Your task to perform on an android device: Search for pizza restaurants on Maps Image 0: 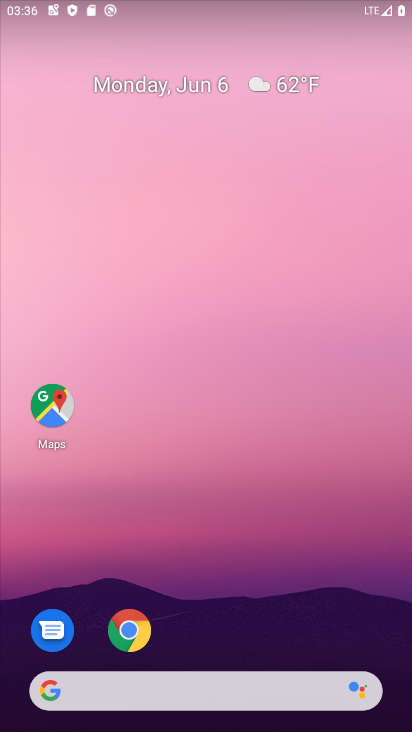
Step 0: drag from (331, 649) to (307, 288)
Your task to perform on an android device: Search for pizza restaurants on Maps Image 1: 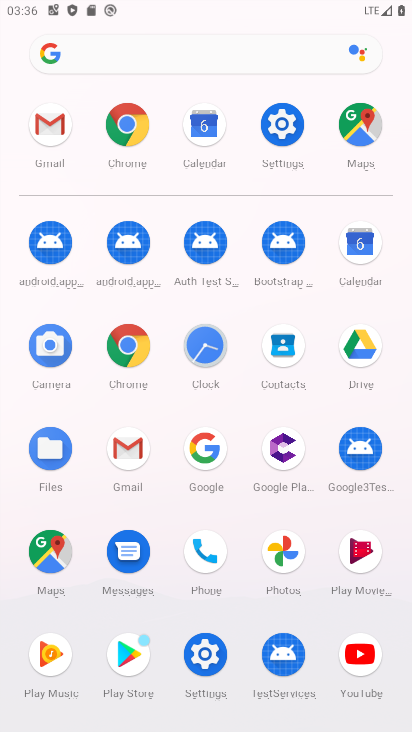
Step 1: click (345, 139)
Your task to perform on an android device: Search for pizza restaurants on Maps Image 2: 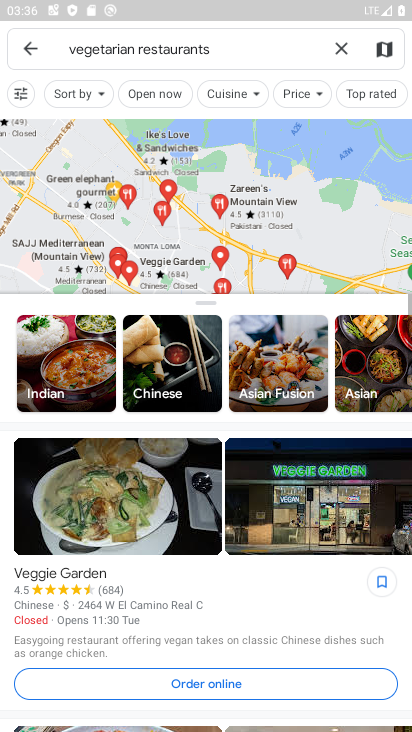
Step 2: click (335, 41)
Your task to perform on an android device: Search for pizza restaurants on Maps Image 3: 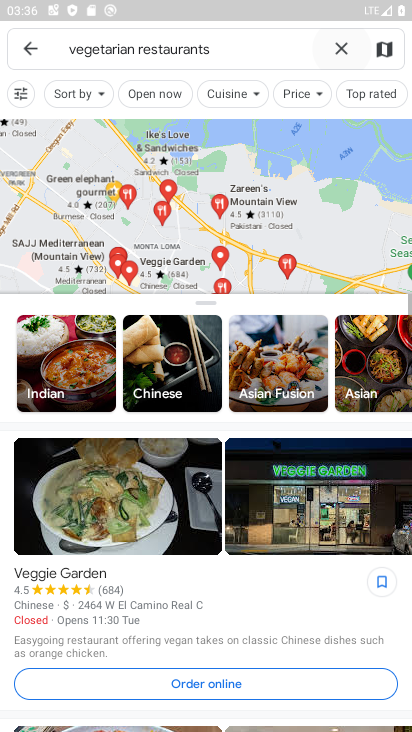
Step 3: click (290, 45)
Your task to perform on an android device: Search for pizza restaurants on Maps Image 4: 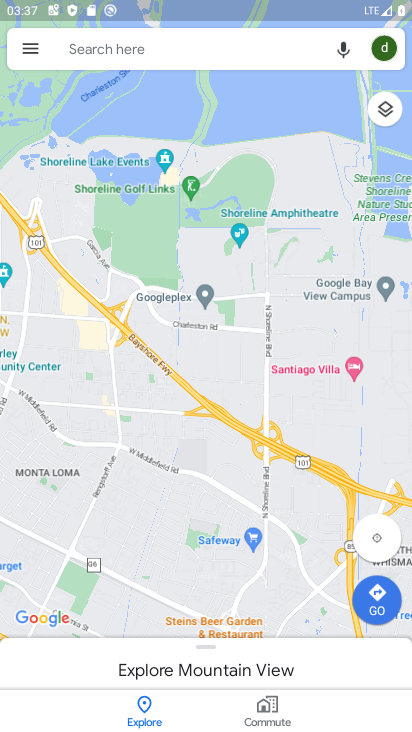
Step 4: type " pizza restaurants"
Your task to perform on an android device: Search for pizza restaurants on Maps Image 5: 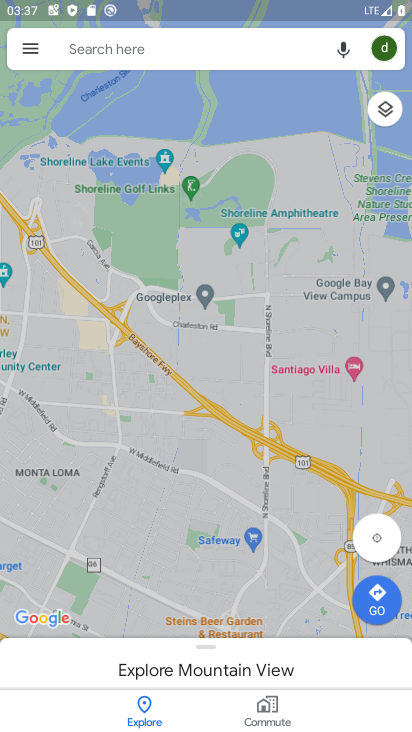
Step 5: type ""
Your task to perform on an android device: Search for pizza restaurants on Maps Image 6: 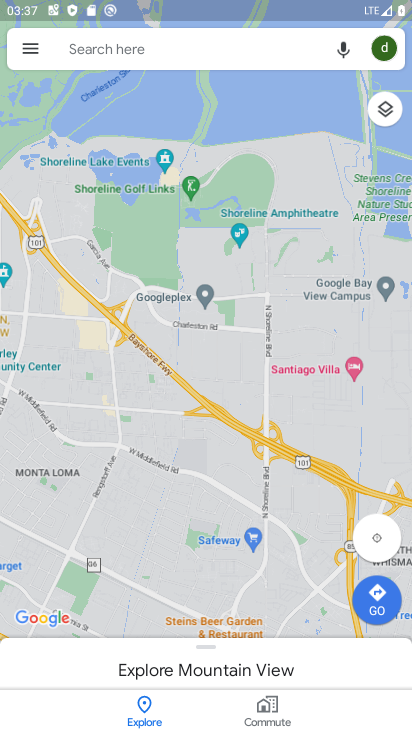
Step 6: click (121, 74)
Your task to perform on an android device: Search for pizza restaurants on Maps Image 7: 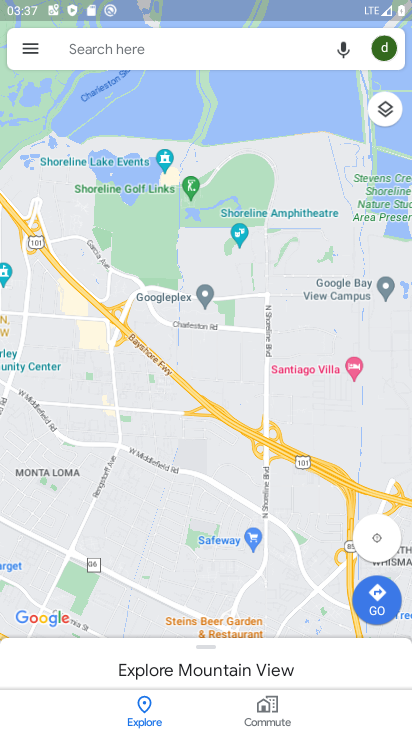
Step 7: click (168, 57)
Your task to perform on an android device: Search for pizza restaurants on Maps Image 8: 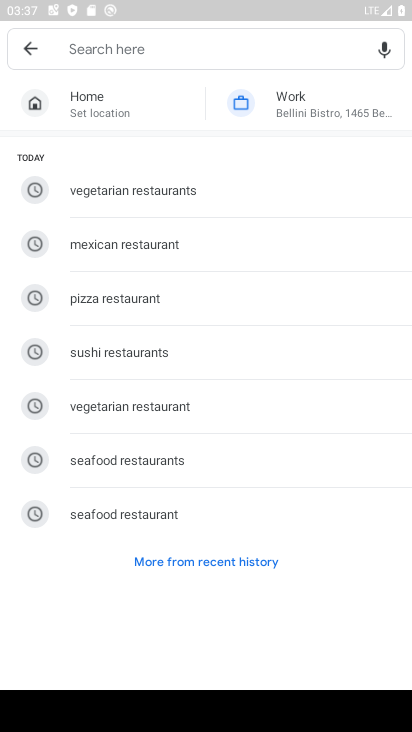
Step 8: type " pizza restaurants"
Your task to perform on an android device: Search for pizza restaurants on Maps Image 9: 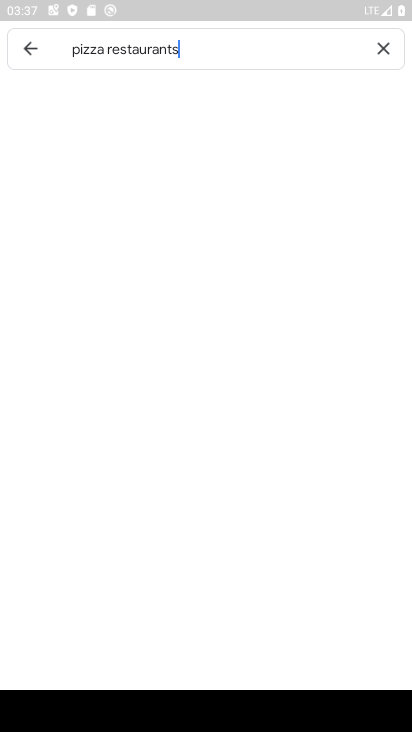
Step 9: type ""
Your task to perform on an android device: Search for pizza restaurants on Maps Image 10: 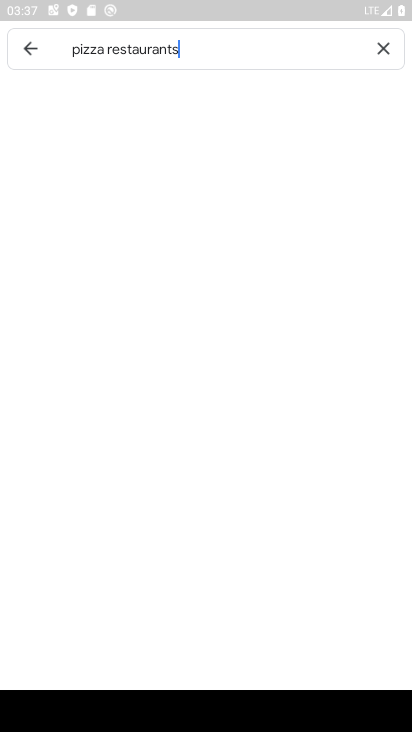
Step 10: click (194, 113)
Your task to perform on an android device: Search for pizza restaurants on Maps Image 11: 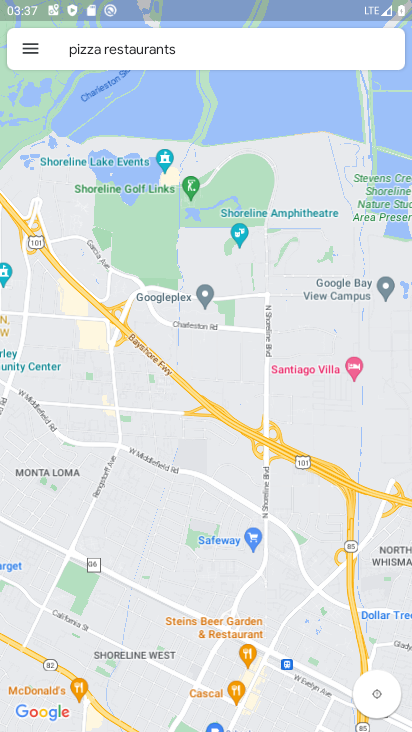
Step 11: task complete